Your task to perform on an android device: star an email in the gmail app Image 0: 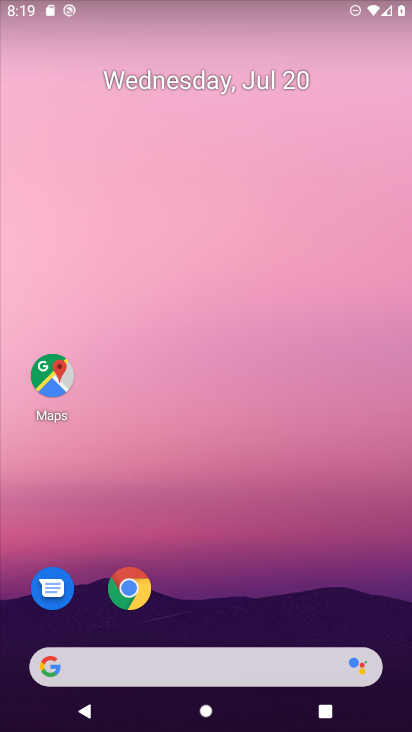
Step 0: drag from (36, 698) to (262, 99)
Your task to perform on an android device: star an email in the gmail app Image 1: 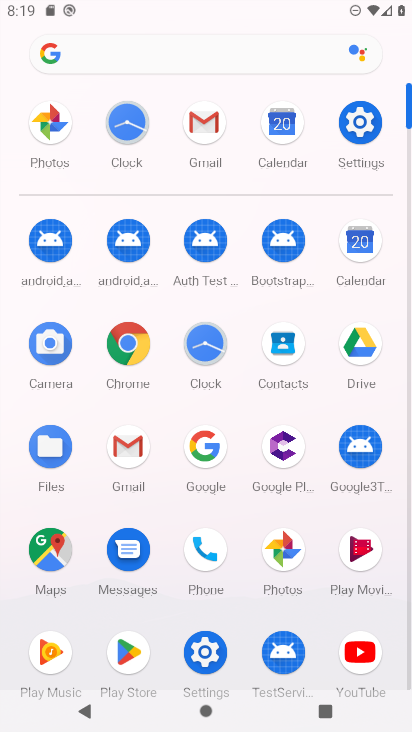
Step 1: click (127, 434)
Your task to perform on an android device: star an email in the gmail app Image 2: 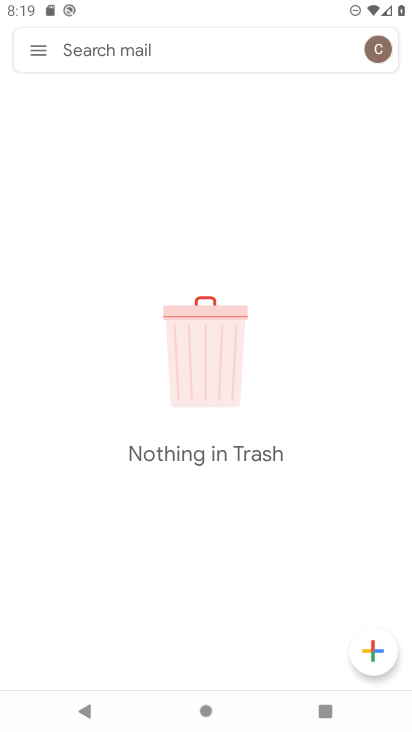
Step 2: click (27, 39)
Your task to perform on an android device: star an email in the gmail app Image 3: 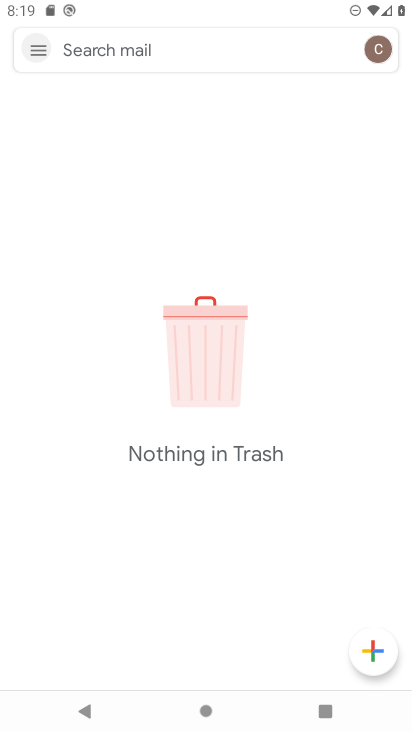
Step 3: click (40, 60)
Your task to perform on an android device: star an email in the gmail app Image 4: 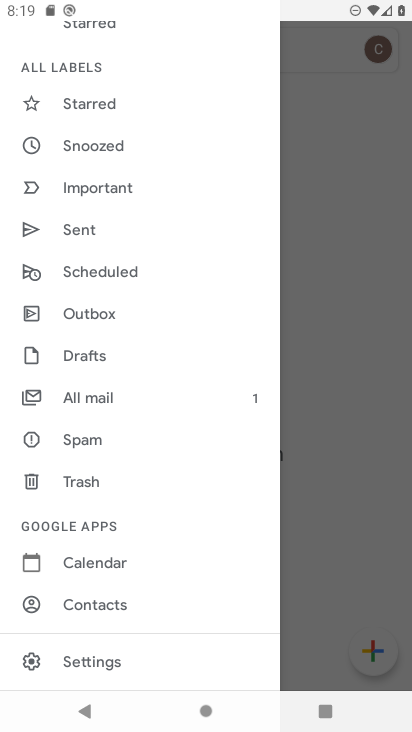
Step 4: click (92, 111)
Your task to perform on an android device: star an email in the gmail app Image 5: 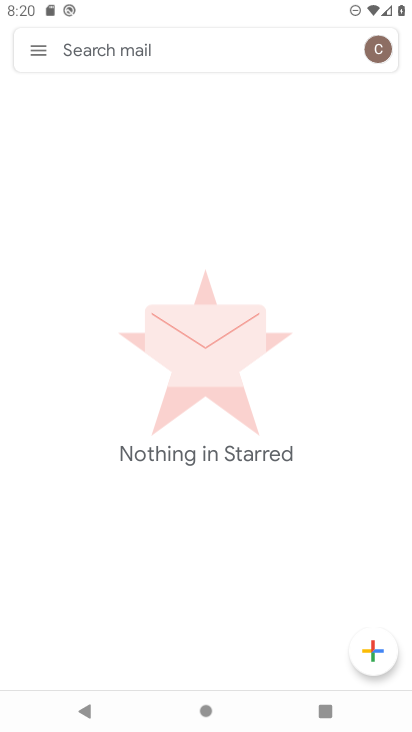
Step 5: task complete